Your task to perform on an android device: turn off picture-in-picture Image 0: 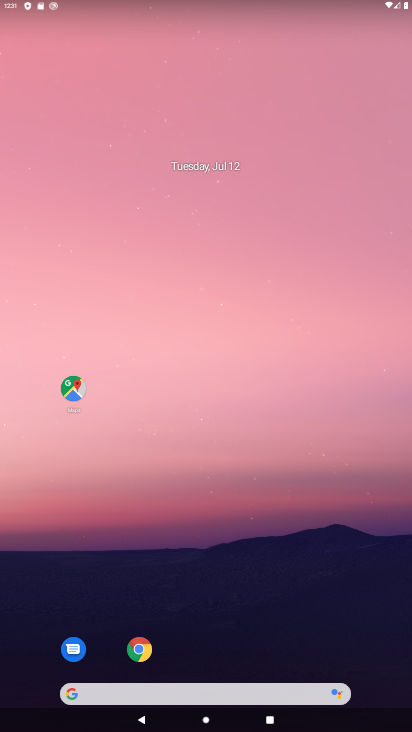
Step 0: click (151, 654)
Your task to perform on an android device: turn off picture-in-picture Image 1: 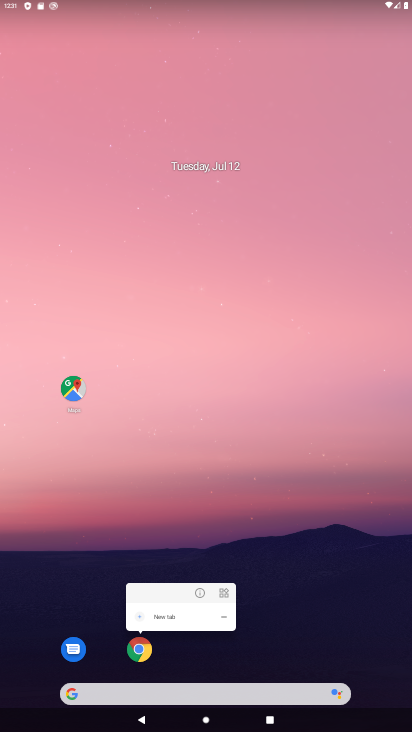
Step 1: click (193, 590)
Your task to perform on an android device: turn off picture-in-picture Image 2: 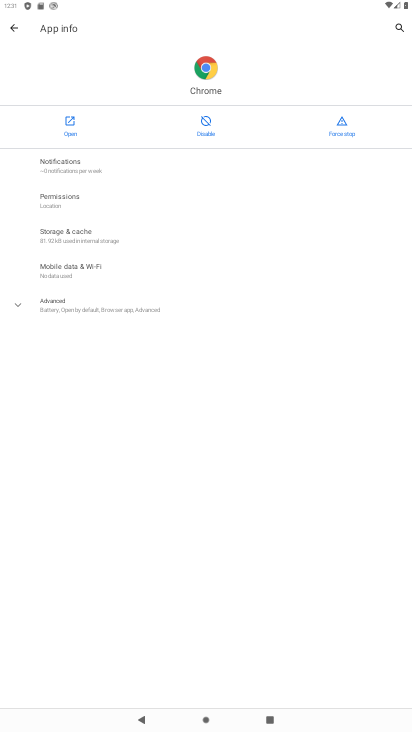
Step 2: click (154, 311)
Your task to perform on an android device: turn off picture-in-picture Image 3: 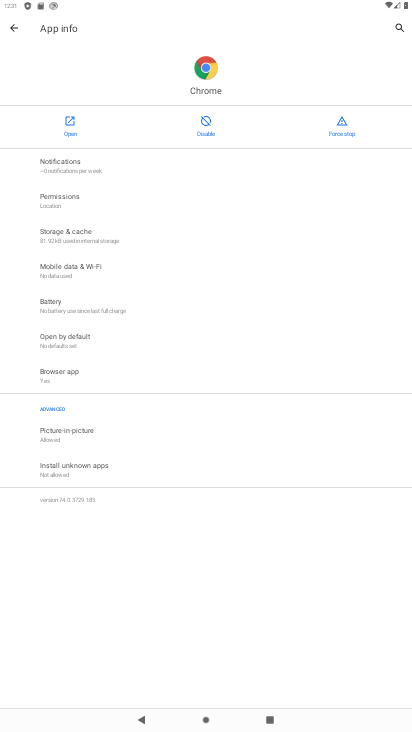
Step 3: click (140, 437)
Your task to perform on an android device: turn off picture-in-picture Image 4: 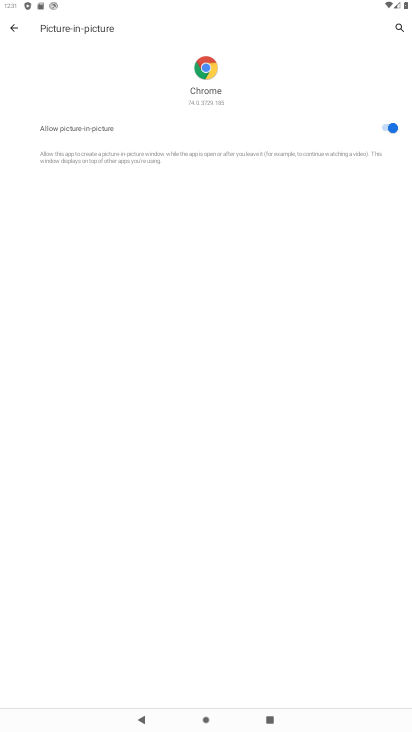
Step 4: click (380, 135)
Your task to perform on an android device: turn off picture-in-picture Image 5: 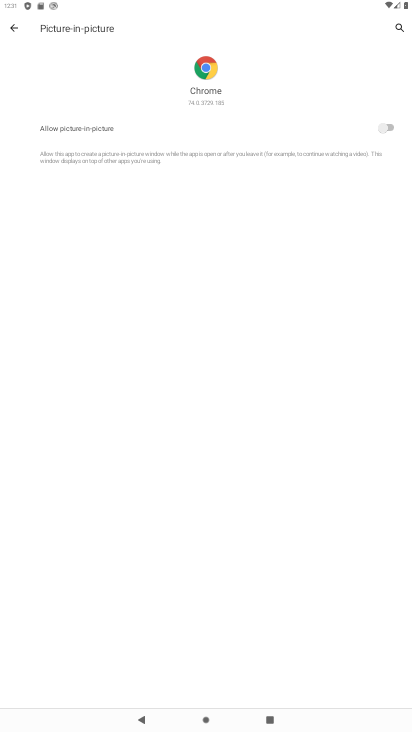
Step 5: task complete